Your task to perform on an android device: Open the stopwatch Image 0: 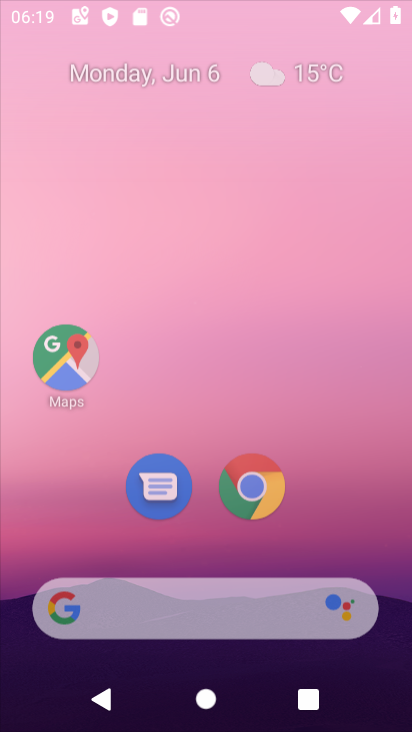
Step 0: press home button
Your task to perform on an android device: Open the stopwatch Image 1: 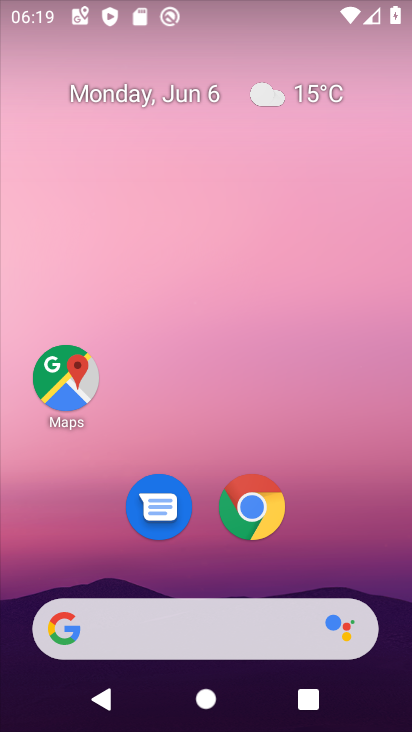
Step 1: drag from (239, 581) to (230, 42)
Your task to perform on an android device: Open the stopwatch Image 2: 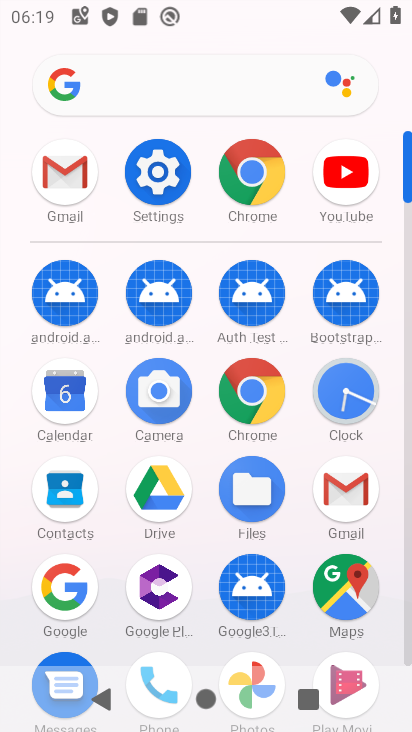
Step 2: click (140, 190)
Your task to perform on an android device: Open the stopwatch Image 3: 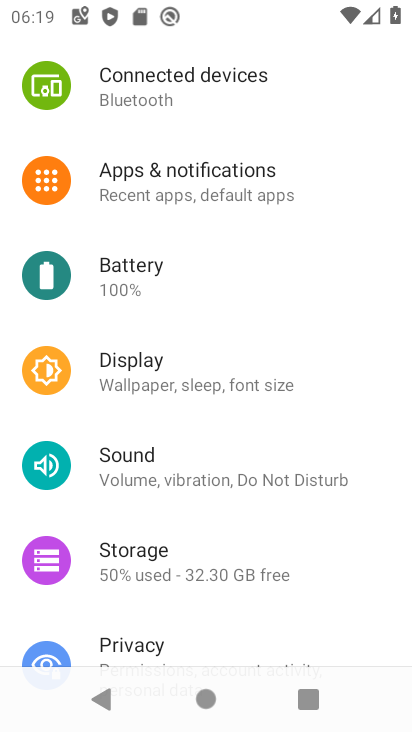
Step 3: drag from (238, 187) to (291, 695)
Your task to perform on an android device: Open the stopwatch Image 4: 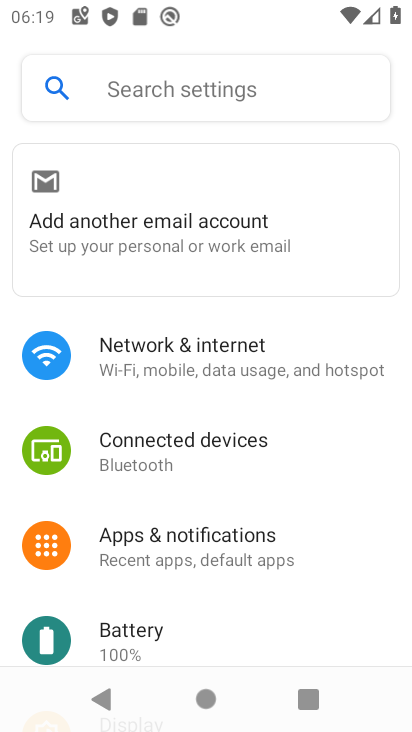
Step 4: drag from (179, 598) to (168, 167)
Your task to perform on an android device: Open the stopwatch Image 5: 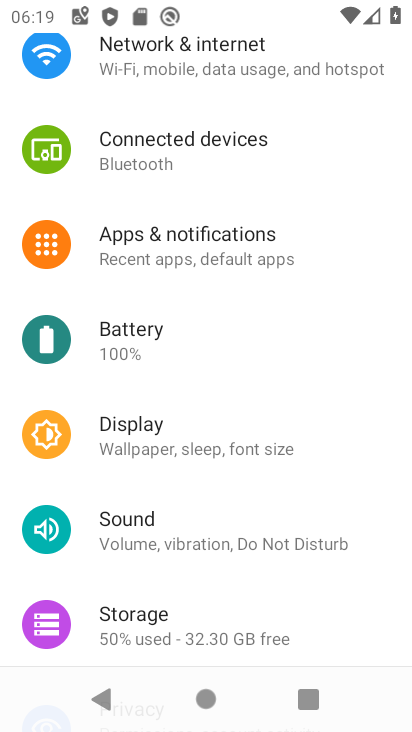
Step 5: drag from (192, 577) to (221, 243)
Your task to perform on an android device: Open the stopwatch Image 6: 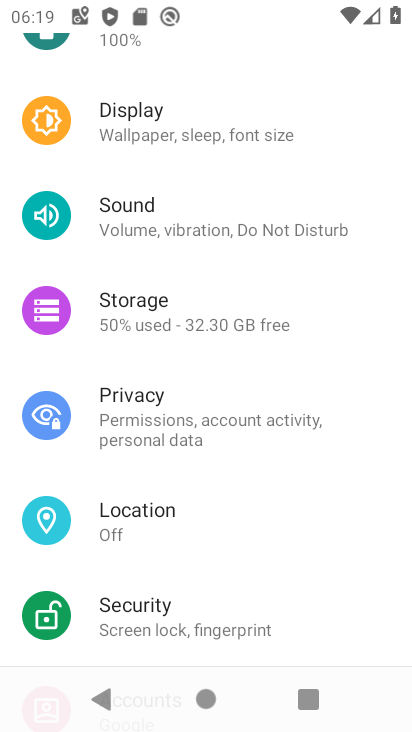
Step 6: click (167, 529)
Your task to perform on an android device: Open the stopwatch Image 7: 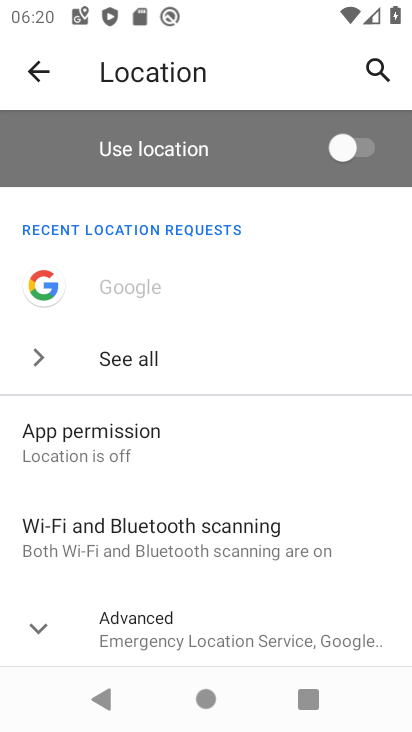
Step 7: press home button
Your task to perform on an android device: Open the stopwatch Image 8: 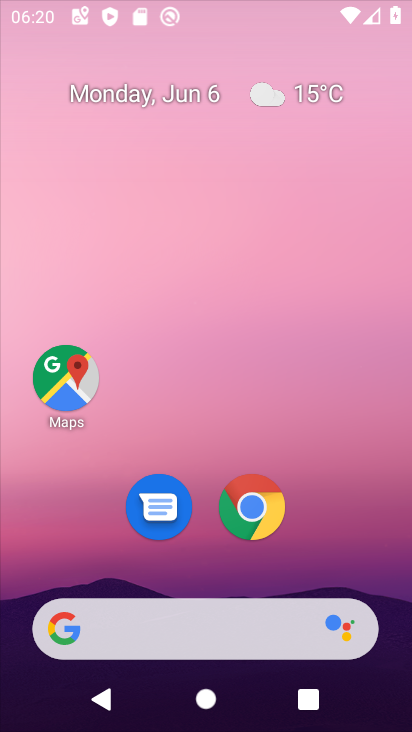
Step 8: drag from (218, 492) to (204, 123)
Your task to perform on an android device: Open the stopwatch Image 9: 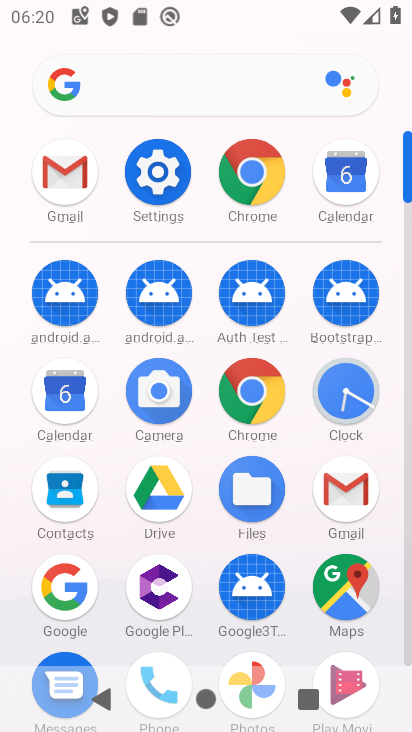
Step 9: click (360, 399)
Your task to perform on an android device: Open the stopwatch Image 10: 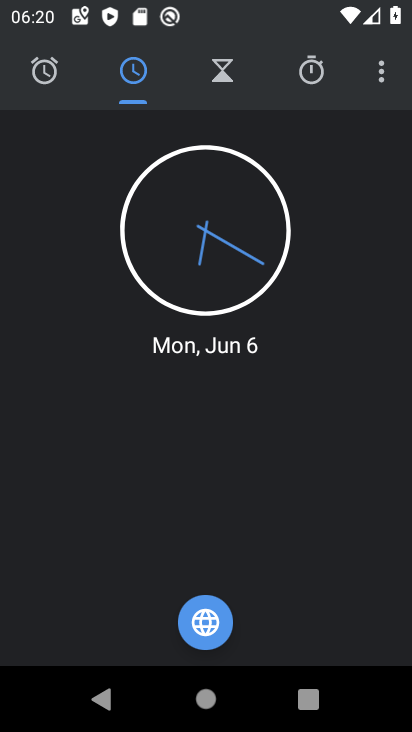
Step 10: click (321, 66)
Your task to perform on an android device: Open the stopwatch Image 11: 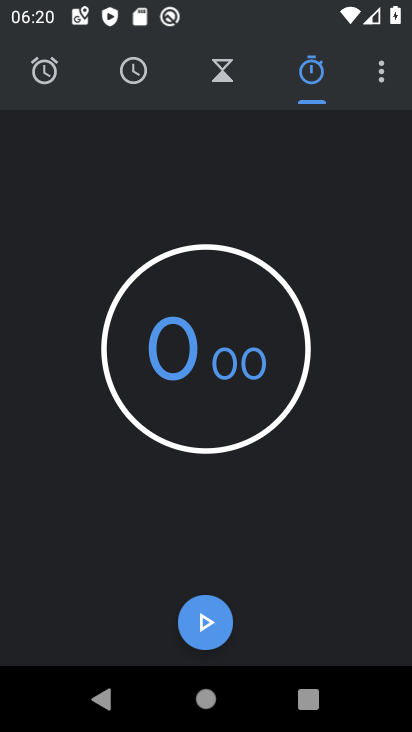
Step 11: click (213, 633)
Your task to perform on an android device: Open the stopwatch Image 12: 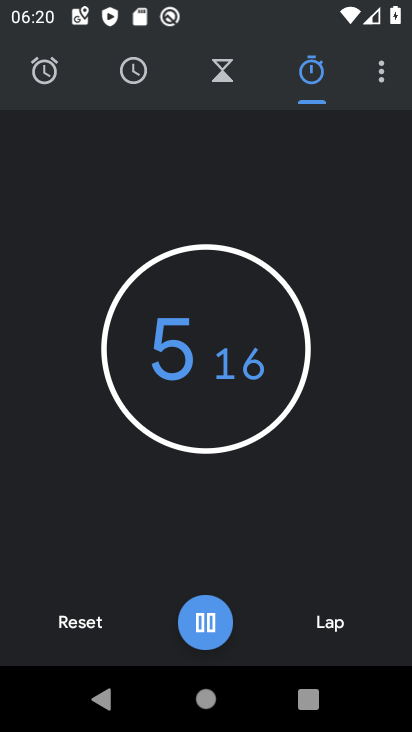
Step 12: click (208, 630)
Your task to perform on an android device: Open the stopwatch Image 13: 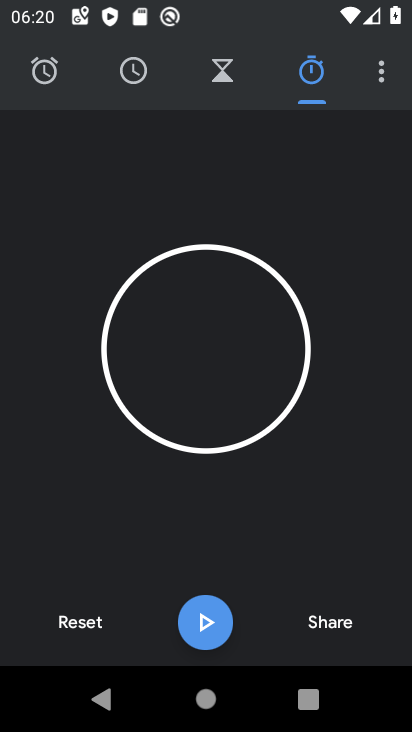
Step 13: task complete